Your task to perform on an android device: toggle javascript in the chrome app Image 0: 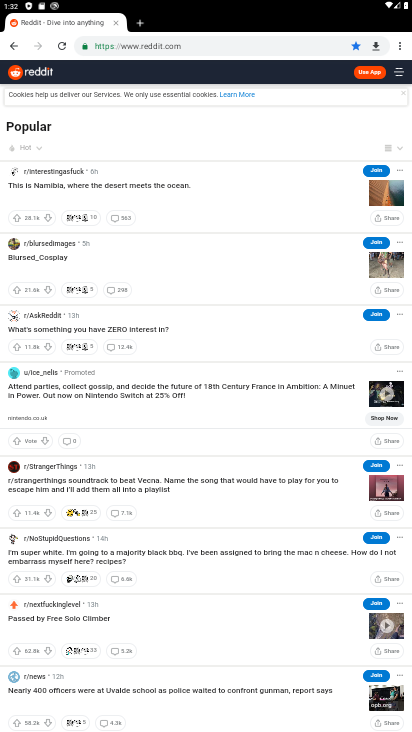
Step 0: press home button
Your task to perform on an android device: toggle javascript in the chrome app Image 1: 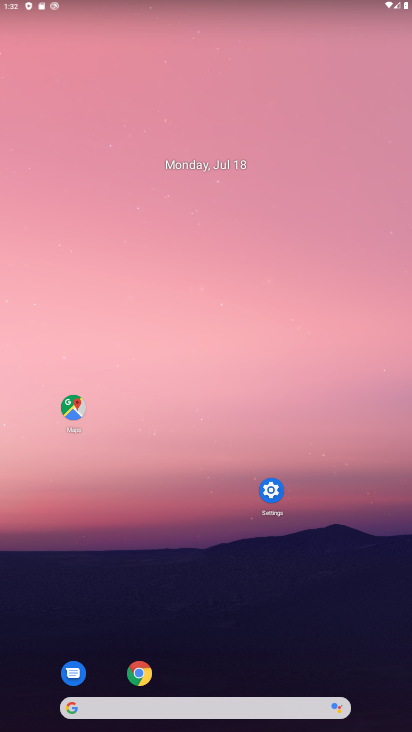
Step 1: click (142, 673)
Your task to perform on an android device: toggle javascript in the chrome app Image 2: 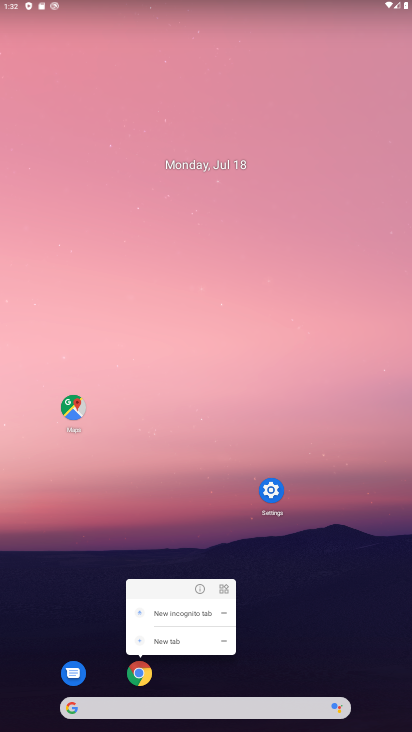
Step 2: click (140, 674)
Your task to perform on an android device: toggle javascript in the chrome app Image 3: 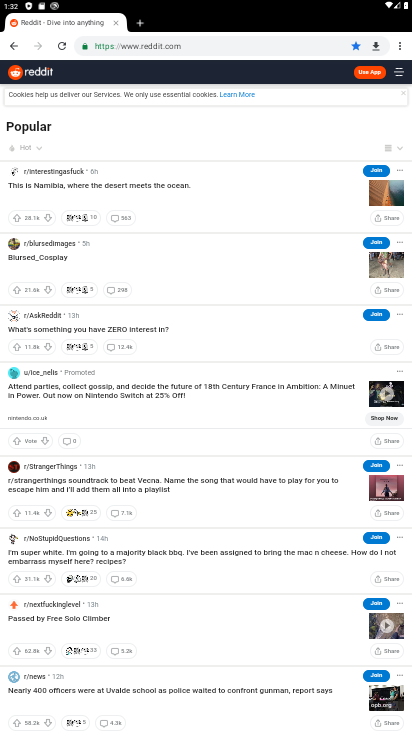
Step 3: click (397, 43)
Your task to perform on an android device: toggle javascript in the chrome app Image 4: 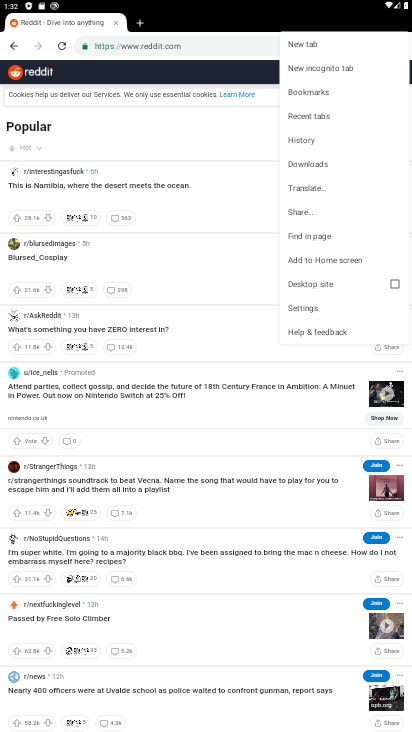
Step 4: click (305, 299)
Your task to perform on an android device: toggle javascript in the chrome app Image 5: 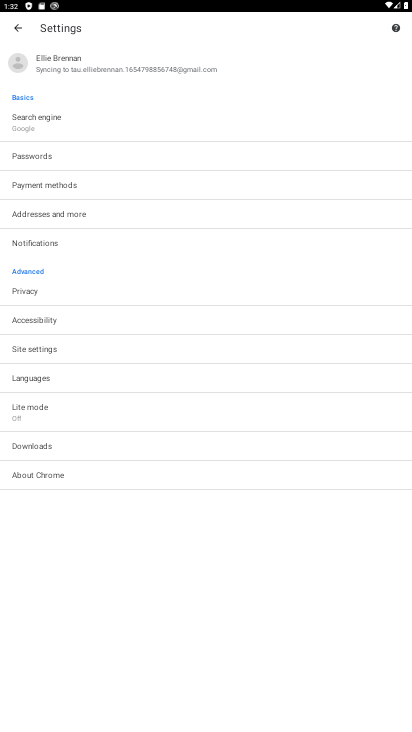
Step 5: click (63, 350)
Your task to perform on an android device: toggle javascript in the chrome app Image 6: 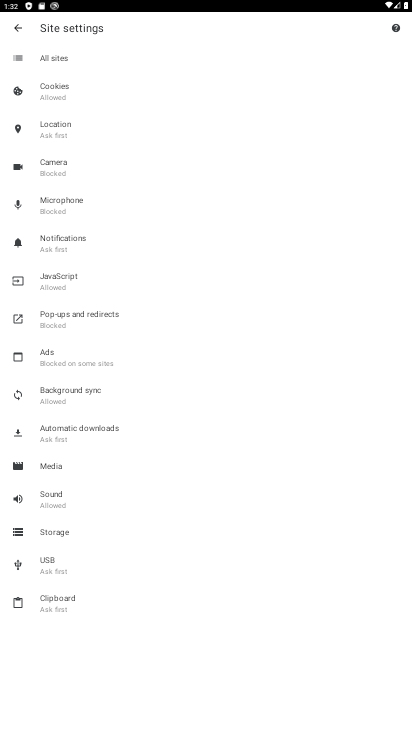
Step 6: click (73, 282)
Your task to perform on an android device: toggle javascript in the chrome app Image 7: 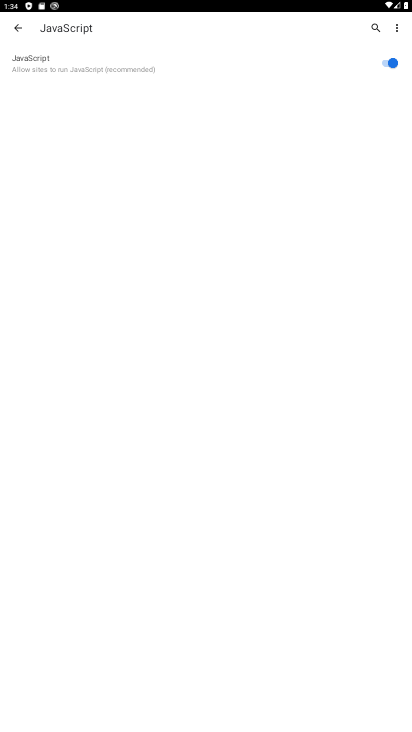
Step 7: task complete